Your task to perform on an android device: Open Chrome and go to settings Image 0: 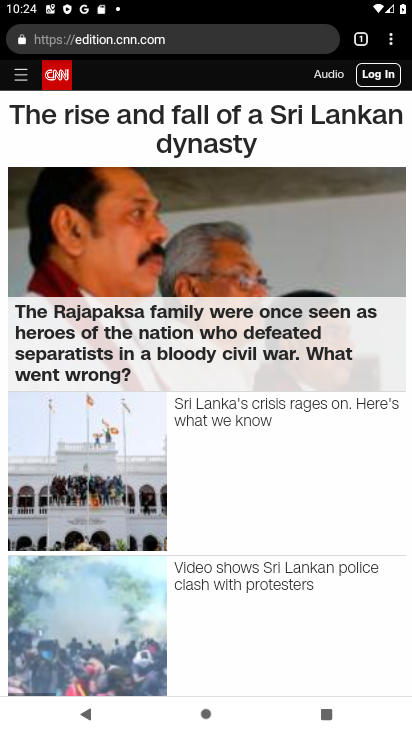
Step 0: press home button
Your task to perform on an android device: Open Chrome and go to settings Image 1: 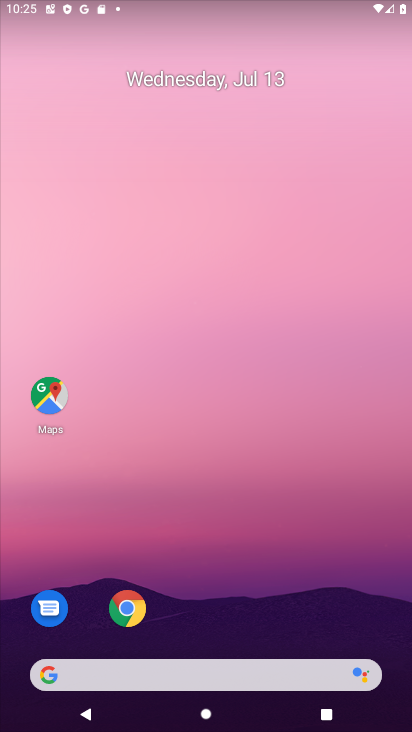
Step 1: click (128, 609)
Your task to perform on an android device: Open Chrome and go to settings Image 2: 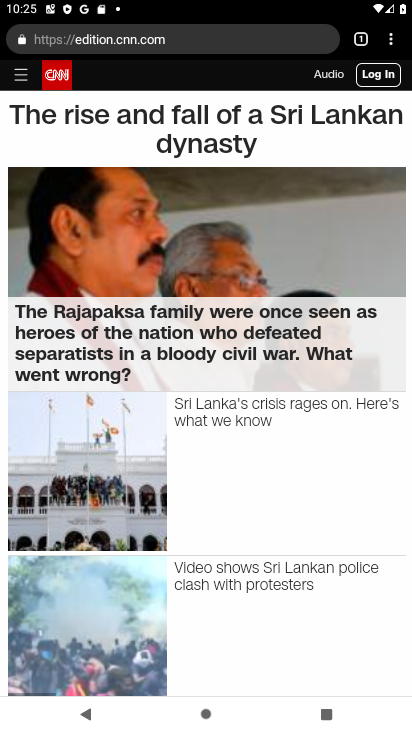
Step 2: click (391, 38)
Your task to perform on an android device: Open Chrome and go to settings Image 3: 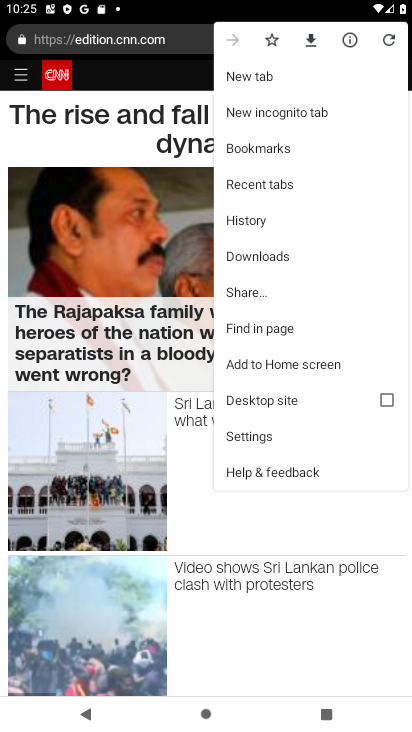
Step 3: click (255, 434)
Your task to perform on an android device: Open Chrome and go to settings Image 4: 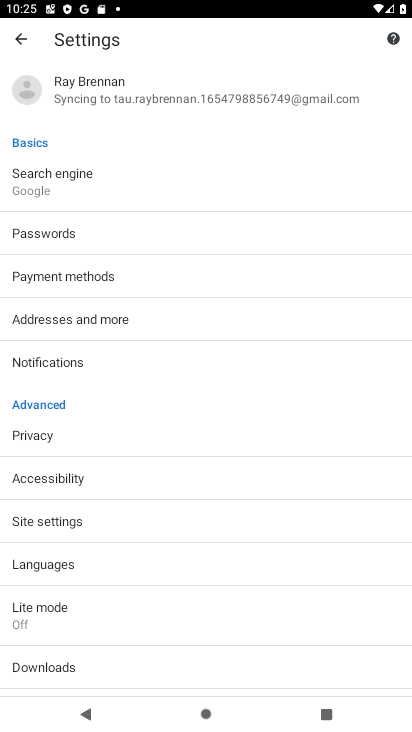
Step 4: task complete